Your task to perform on an android device: Open privacy settings Image 0: 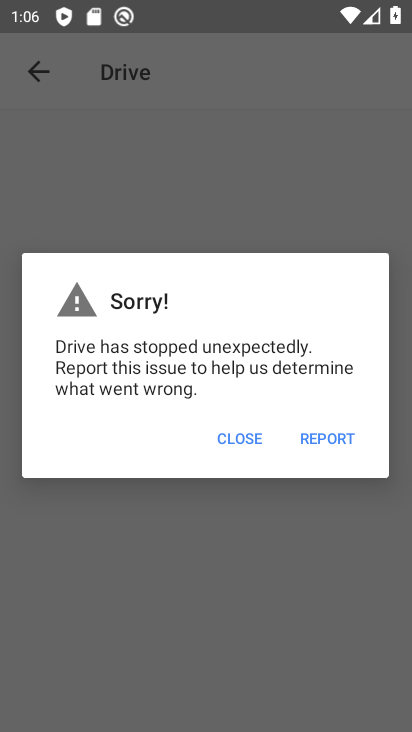
Step 0: press back button
Your task to perform on an android device: Open privacy settings Image 1: 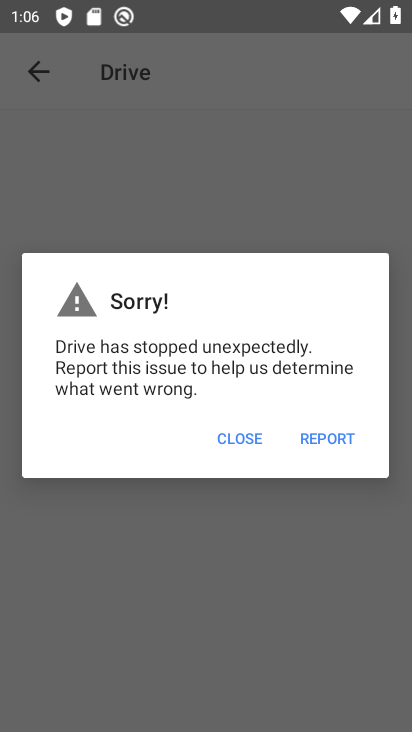
Step 1: press home button
Your task to perform on an android device: Open privacy settings Image 2: 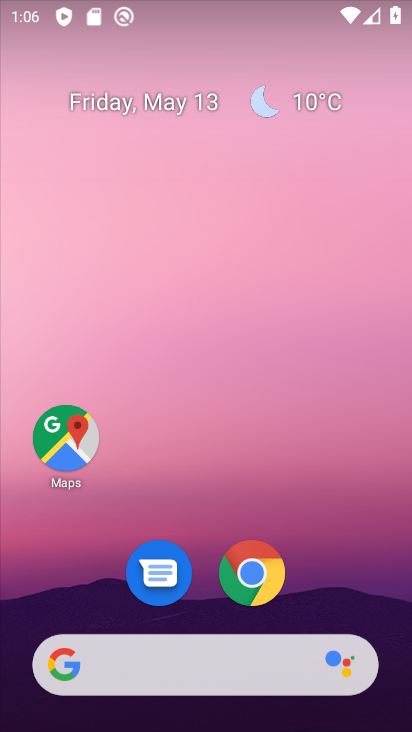
Step 2: drag from (311, 484) to (233, 46)
Your task to perform on an android device: Open privacy settings Image 3: 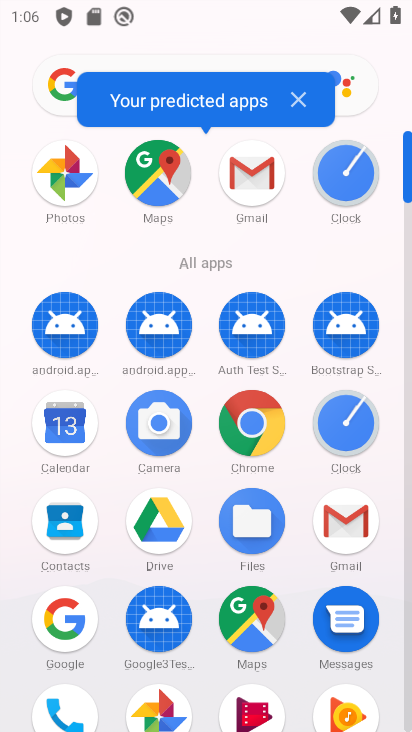
Step 3: click (251, 421)
Your task to perform on an android device: Open privacy settings Image 4: 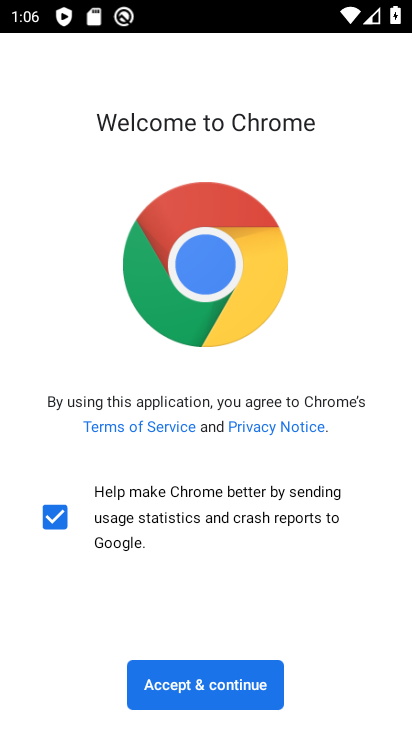
Step 4: click (188, 677)
Your task to perform on an android device: Open privacy settings Image 5: 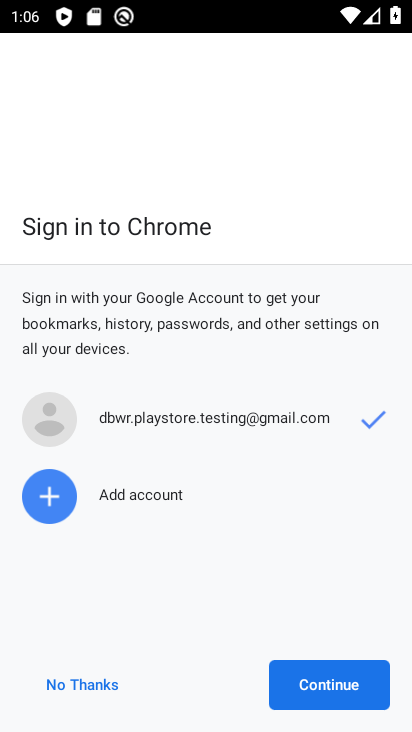
Step 5: click (327, 682)
Your task to perform on an android device: Open privacy settings Image 6: 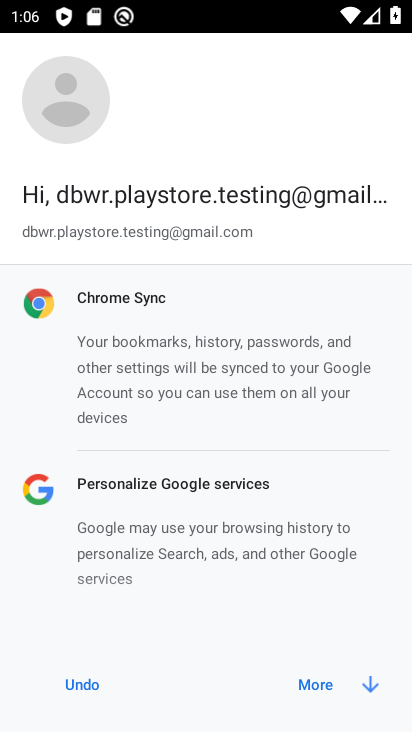
Step 6: click (329, 684)
Your task to perform on an android device: Open privacy settings Image 7: 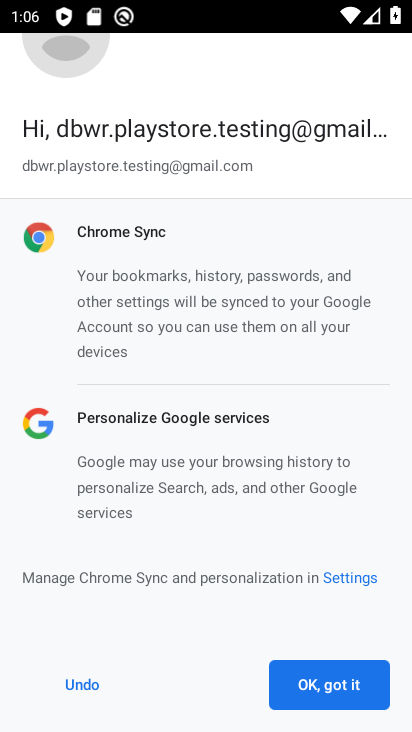
Step 7: click (329, 684)
Your task to perform on an android device: Open privacy settings Image 8: 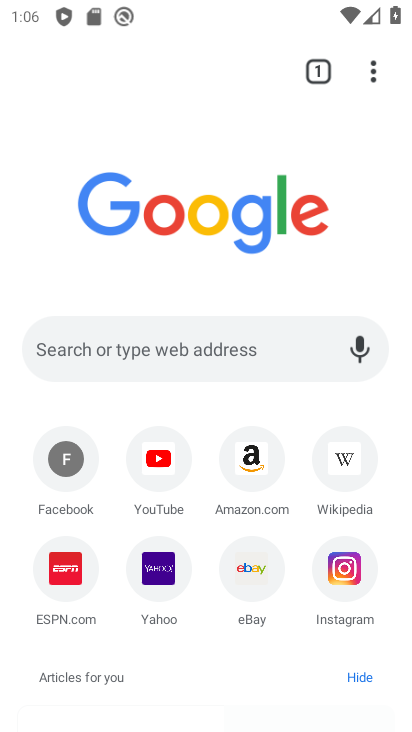
Step 8: drag from (369, 68) to (135, 592)
Your task to perform on an android device: Open privacy settings Image 9: 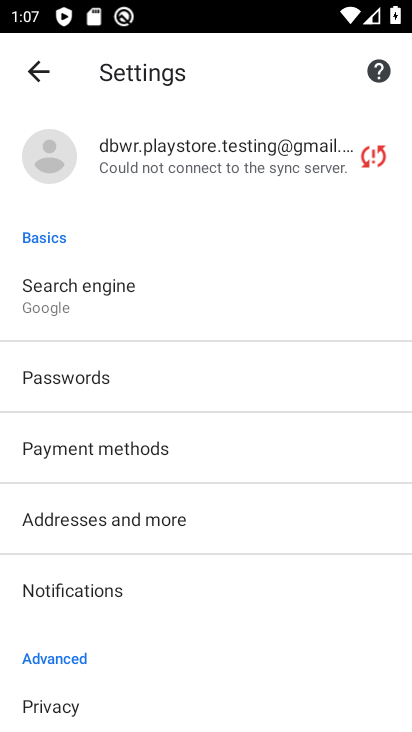
Step 9: click (61, 700)
Your task to perform on an android device: Open privacy settings Image 10: 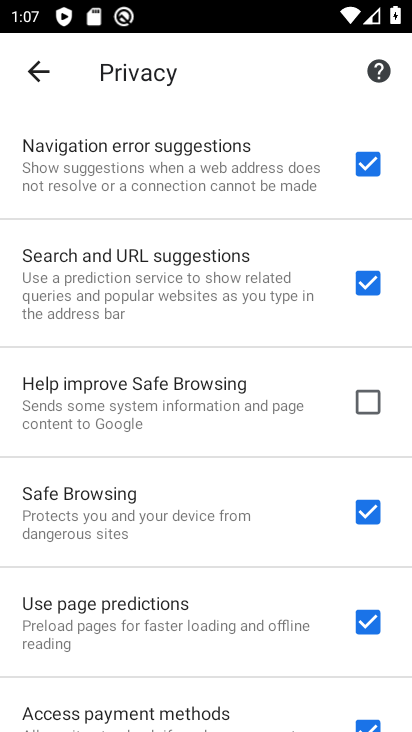
Step 10: task complete